Your task to perform on an android device: Open Chrome and go to settings Image 0: 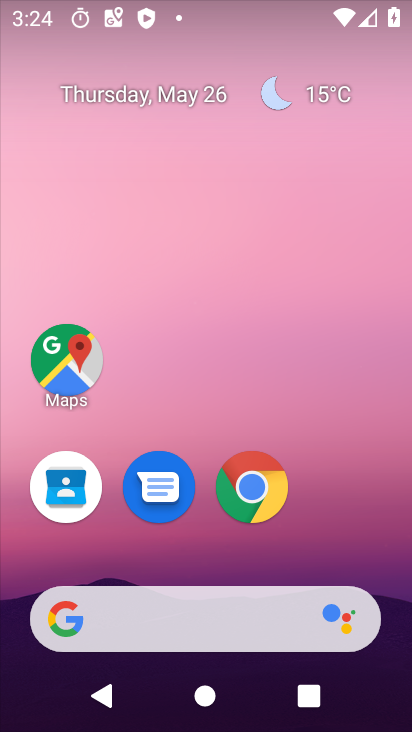
Step 0: click (240, 507)
Your task to perform on an android device: Open Chrome and go to settings Image 1: 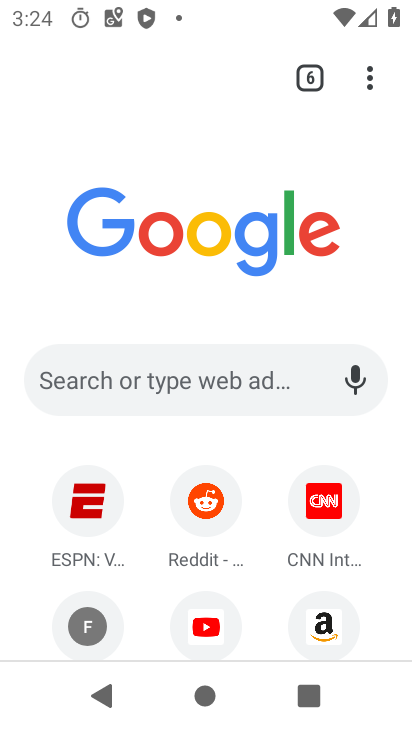
Step 1: click (378, 84)
Your task to perform on an android device: Open Chrome and go to settings Image 2: 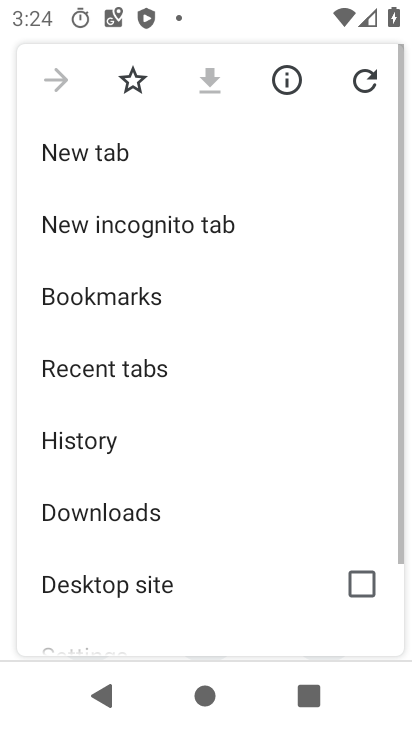
Step 2: drag from (206, 579) to (231, 315)
Your task to perform on an android device: Open Chrome and go to settings Image 3: 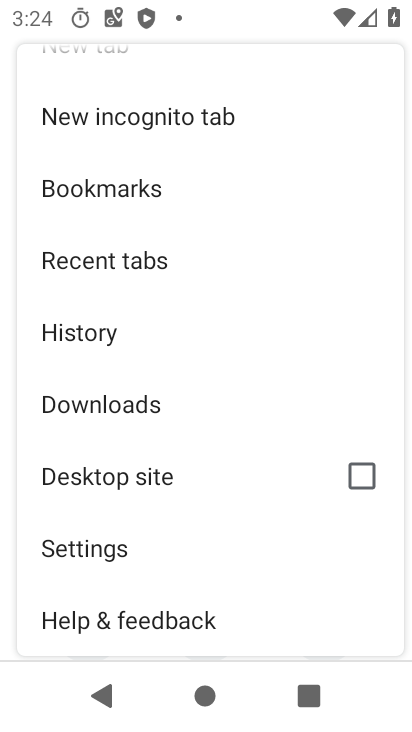
Step 3: click (108, 544)
Your task to perform on an android device: Open Chrome and go to settings Image 4: 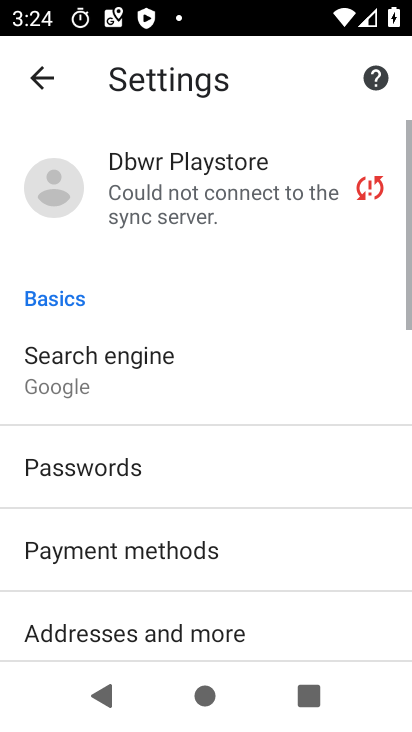
Step 4: task complete